Your task to perform on an android device: turn on the 12-hour format for clock Image 0: 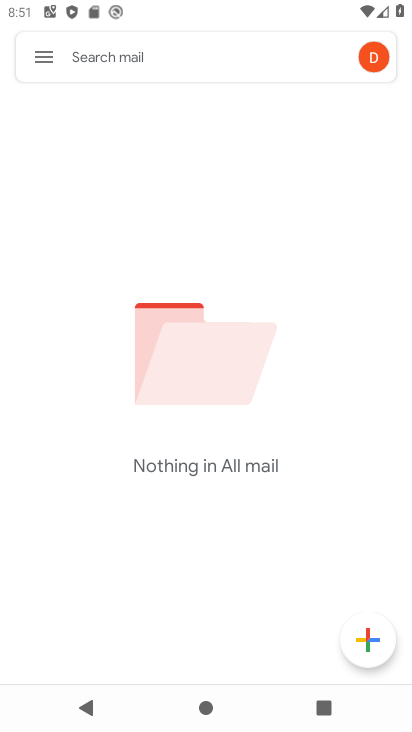
Step 0: press home button
Your task to perform on an android device: turn on the 12-hour format for clock Image 1: 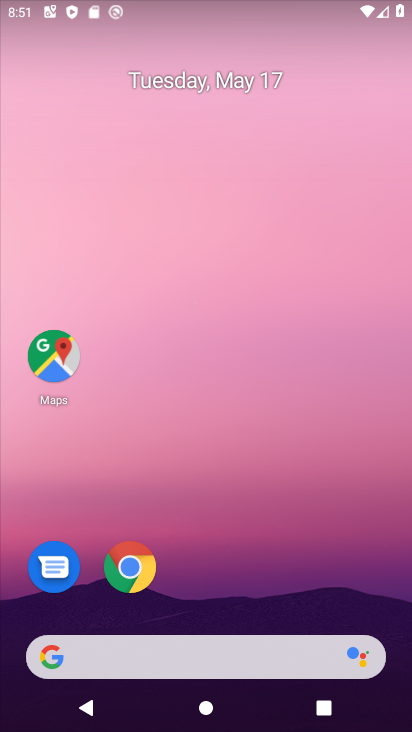
Step 1: drag from (268, 500) to (174, 53)
Your task to perform on an android device: turn on the 12-hour format for clock Image 2: 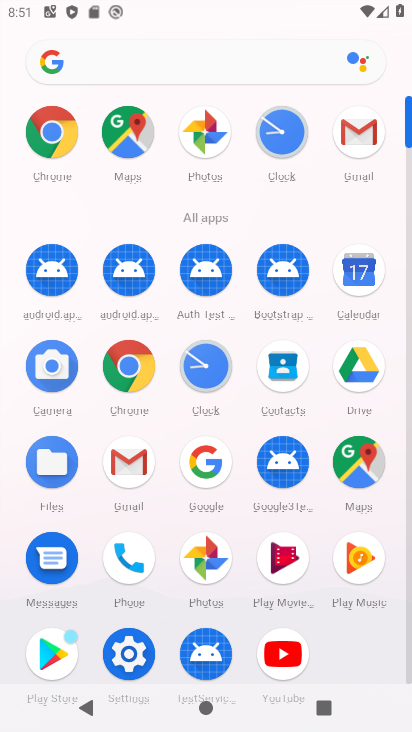
Step 2: click (283, 135)
Your task to perform on an android device: turn on the 12-hour format for clock Image 3: 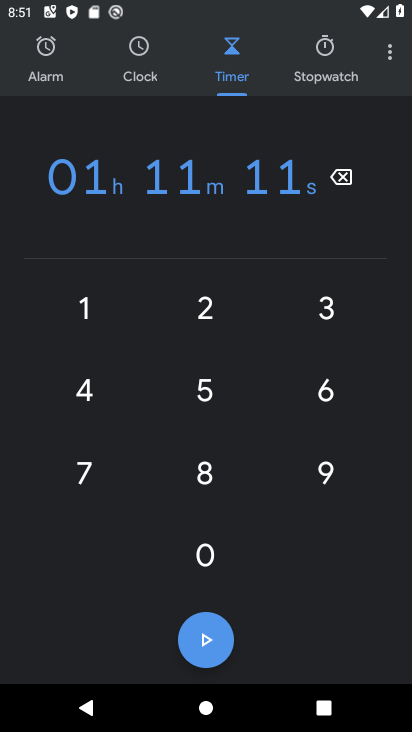
Step 3: click (387, 47)
Your task to perform on an android device: turn on the 12-hour format for clock Image 4: 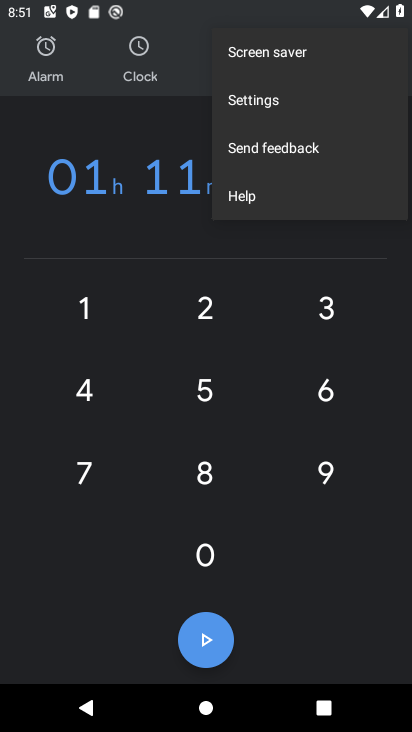
Step 4: click (265, 99)
Your task to perform on an android device: turn on the 12-hour format for clock Image 5: 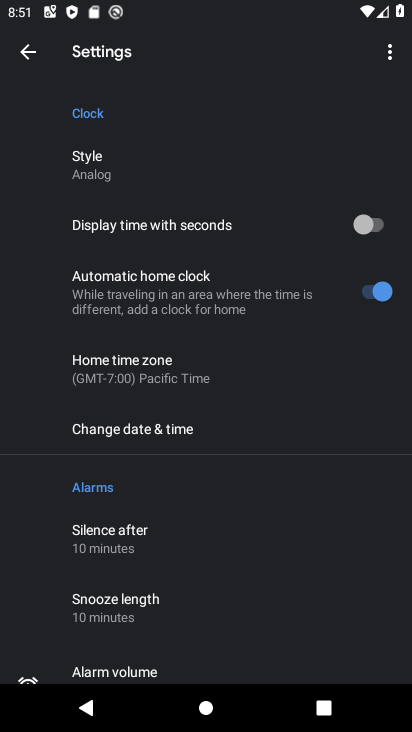
Step 5: drag from (204, 538) to (172, 401)
Your task to perform on an android device: turn on the 12-hour format for clock Image 6: 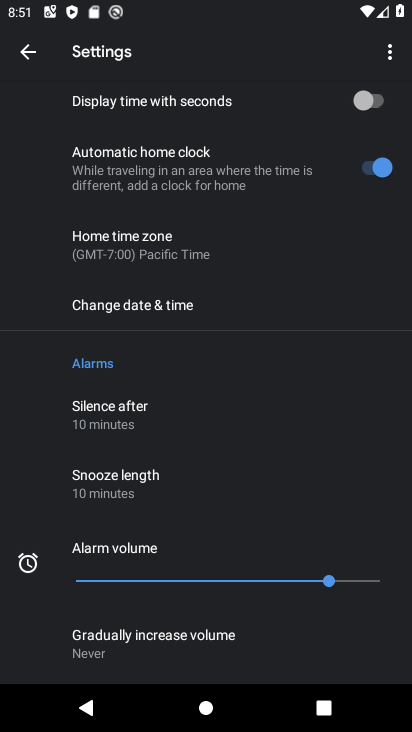
Step 6: click (162, 301)
Your task to perform on an android device: turn on the 12-hour format for clock Image 7: 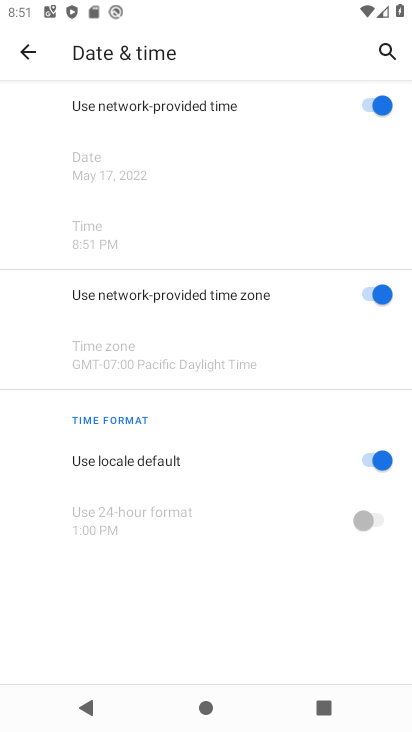
Step 7: task complete